Your task to perform on an android device: Show the shopping cart on costco. Add "razer huntsman" to the cart on costco Image 0: 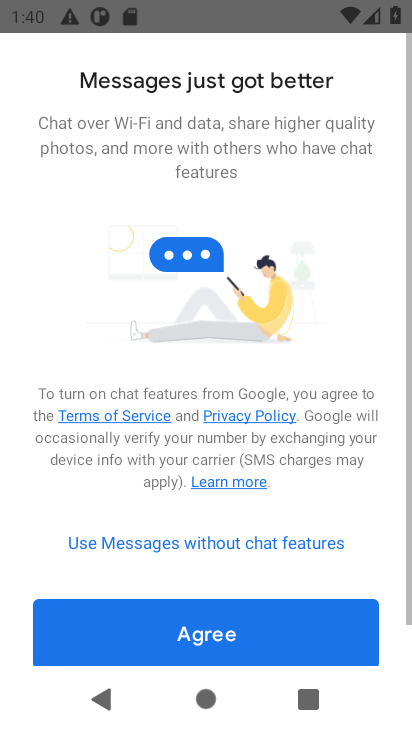
Step 0: press home button
Your task to perform on an android device: Show the shopping cart on costco. Add "razer huntsman" to the cart on costco Image 1: 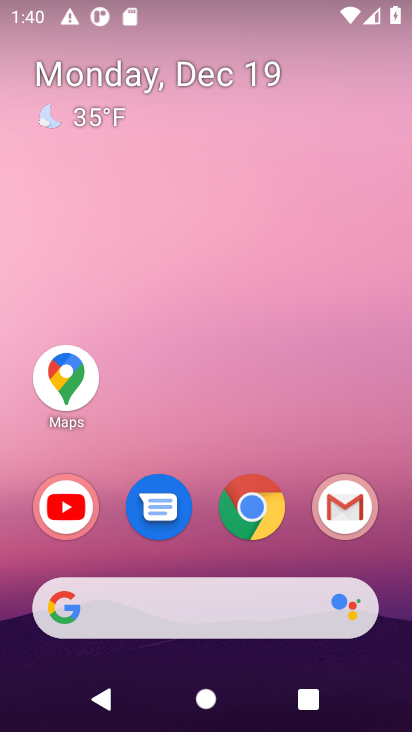
Step 1: click (250, 512)
Your task to perform on an android device: Show the shopping cart on costco. Add "razer huntsman" to the cart on costco Image 2: 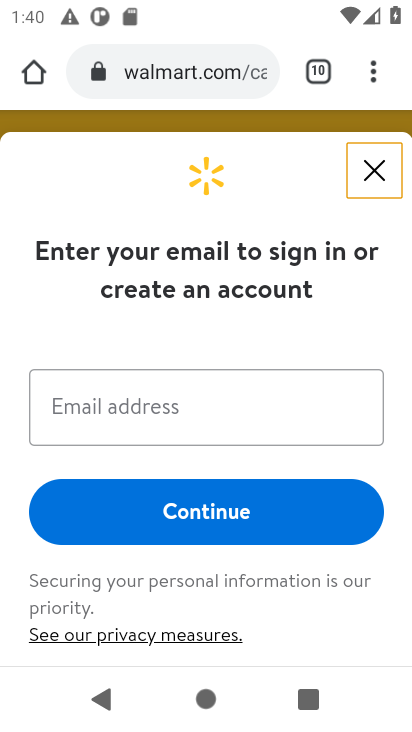
Step 2: click (184, 67)
Your task to perform on an android device: Show the shopping cart on costco. Add "razer huntsman" to the cart on costco Image 3: 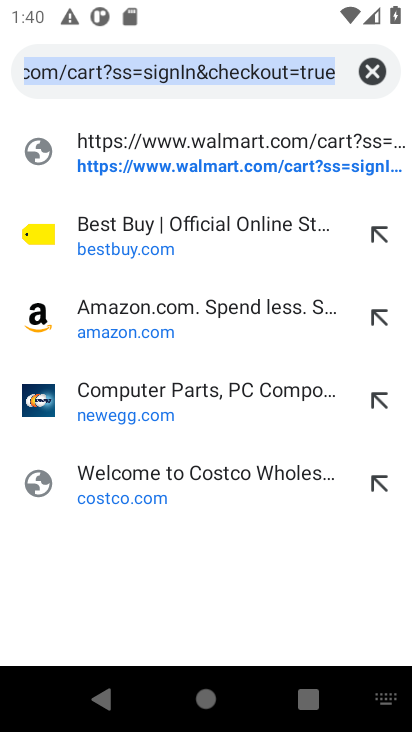
Step 3: click (107, 472)
Your task to perform on an android device: Show the shopping cart on costco. Add "razer huntsman" to the cart on costco Image 4: 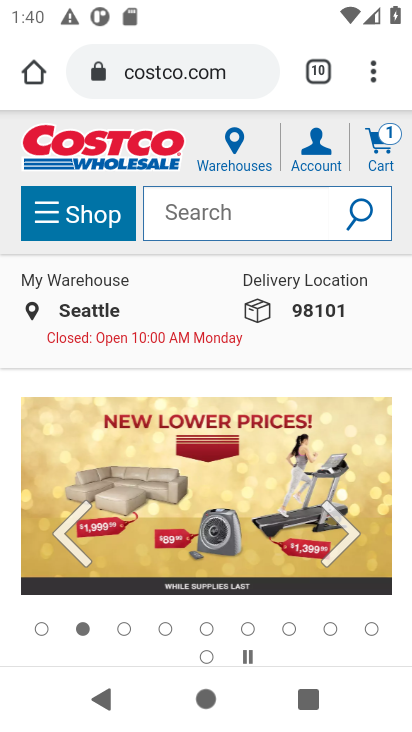
Step 4: click (377, 161)
Your task to perform on an android device: Show the shopping cart on costco. Add "razer huntsman" to the cart on costco Image 5: 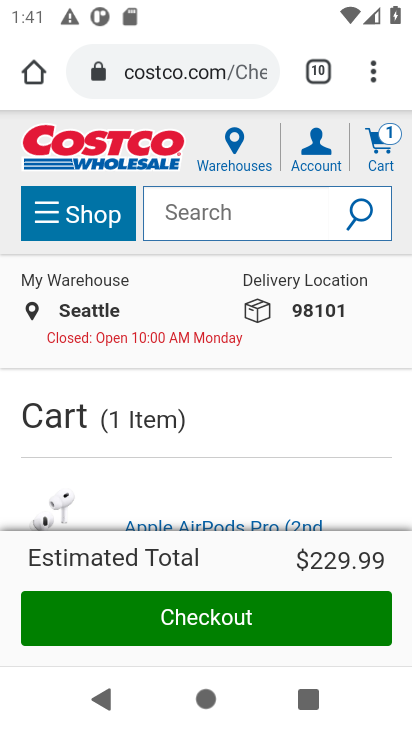
Step 5: click (179, 219)
Your task to perform on an android device: Show the shopping cart on costco. Add "razer huntsman" to the cart on costco Image 6: 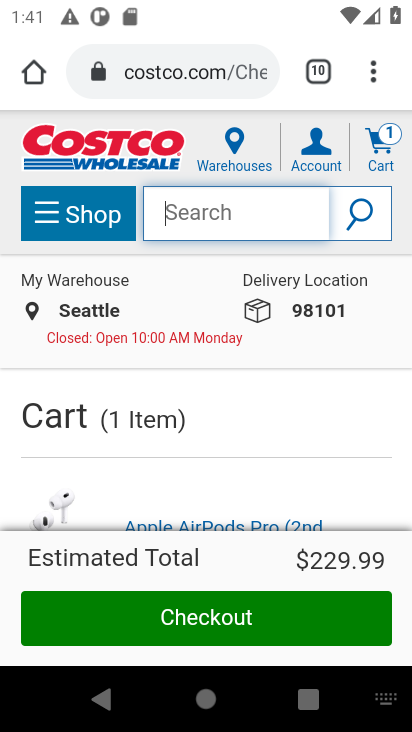
Step 6: type "razer huntsman"
Your task to perform on an android device: Show the shopping cart on costco. Add "razer huntsman" to the cart on costco Image 7: 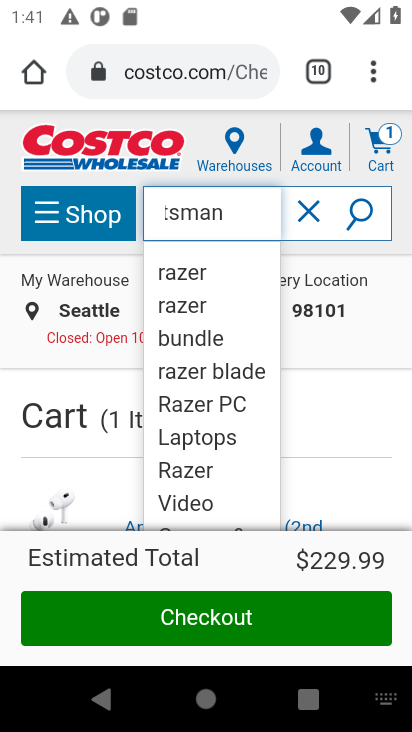
Step 7: click (361, 211)
Your task to perform on an android device: Show the shopping cart on costco. Add "razer huntsman" to the cart on costco Image 8: 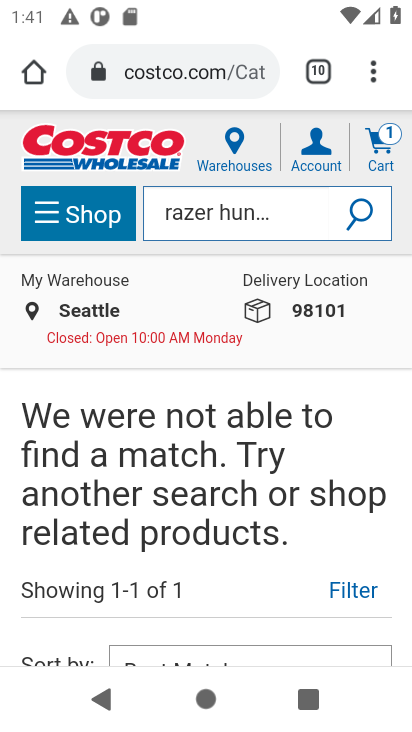
Step 8: task complete